Your task to perform on an android device: Check the new Jordans on Nike. Image 0: 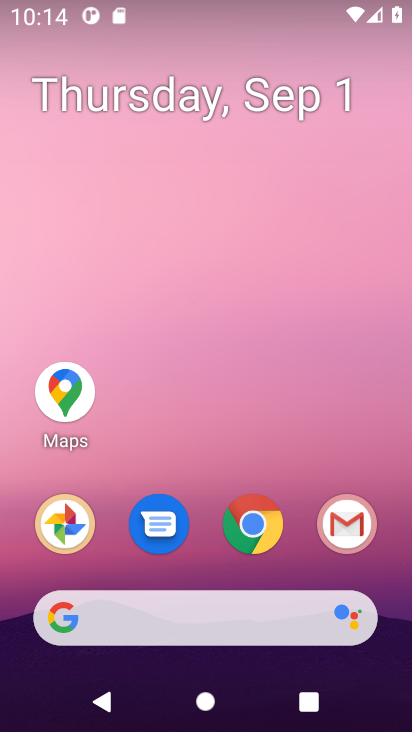
Step 0: press home button
Your task to perform on an android device: Check the new Jordans on Nike. Image 1: 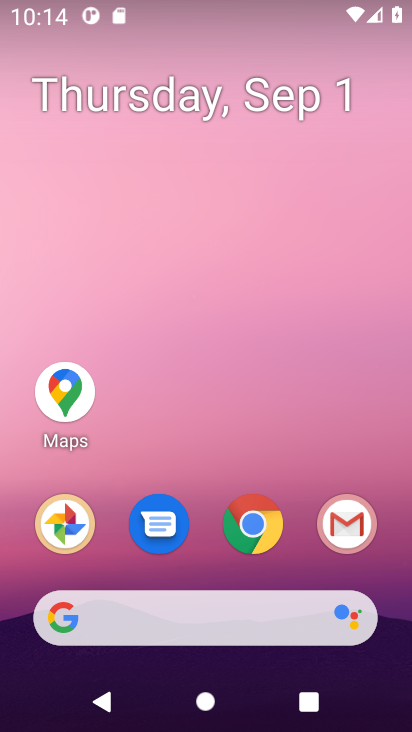
Step 1: click (377, 145)
Your task to perform on an android device: Check the new Jordans on Nike. Image 2: 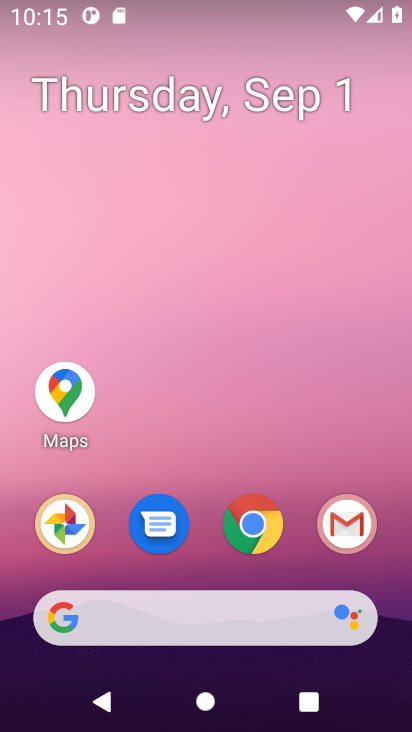
Step 2: drag from (393, 374) to (357, 70)
Your task to perform on an android device: Check the new Jordans on Nike. Image 3: 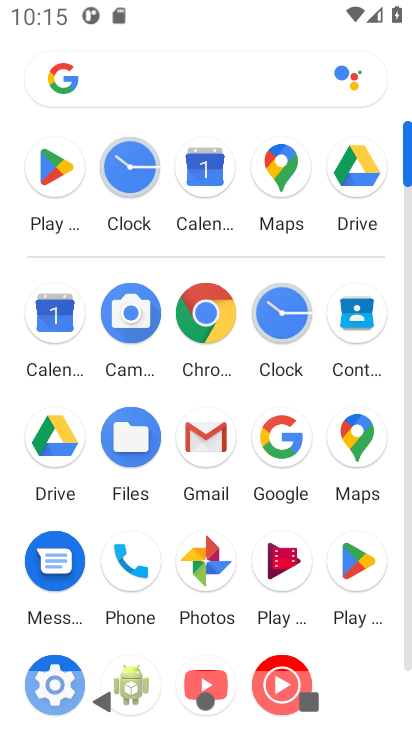
Step 3: click (216, 304)
Your task to perform on an android device: Check the new Jordans on Nike. Image 4: 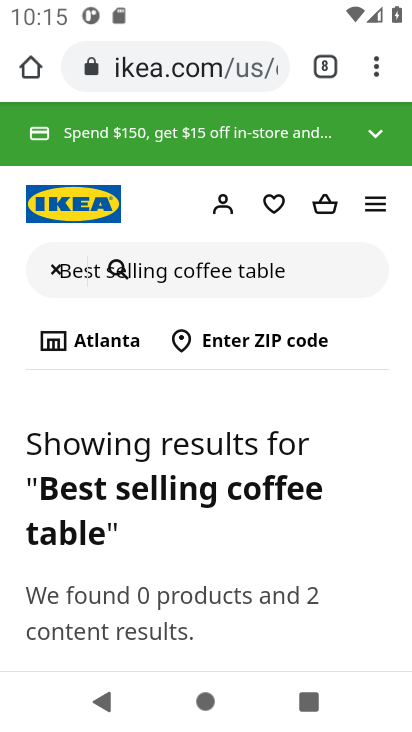
Step 4: click (198, 70)
Your task to perform on an android device: Check the new Jordans on Nike. Image 5: 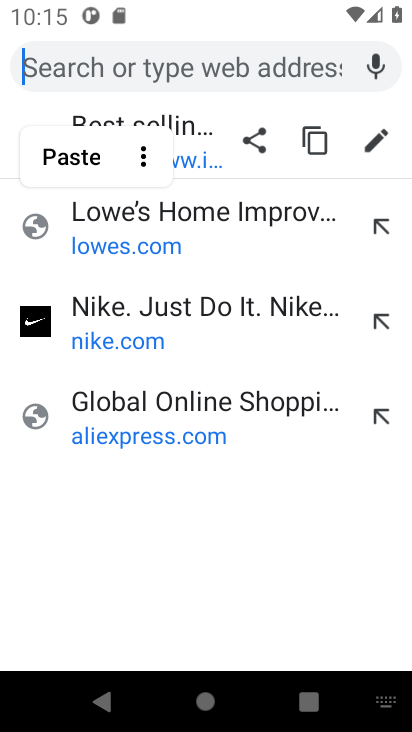
Step 5: type "nike"
Your task to perform on an android device: Check the new Jordans on Nike. Image 6: 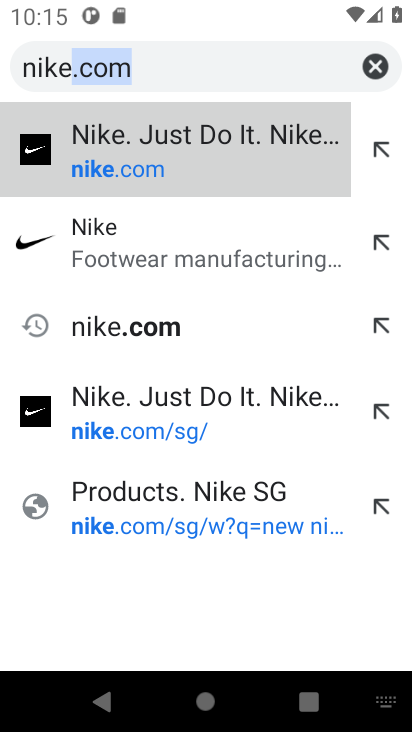
Step 6: click (152, 154)
Your task to perform on an android device: Check the new Jordans on Nike. Image 7: 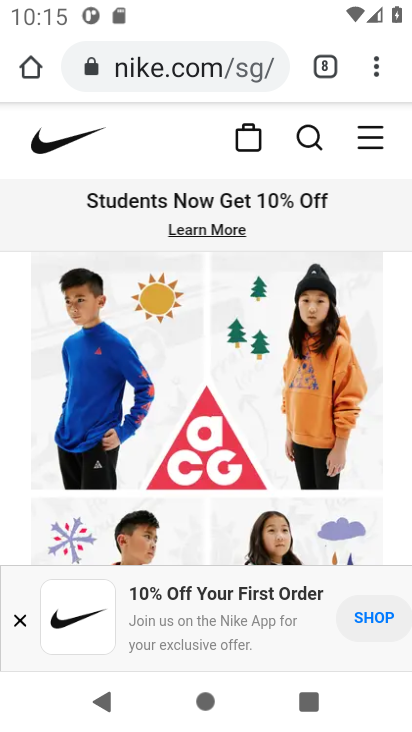
Step 7: click (306, 130)
Your task to perform on an android device: Check the new Jordans on Nike. Image 8: 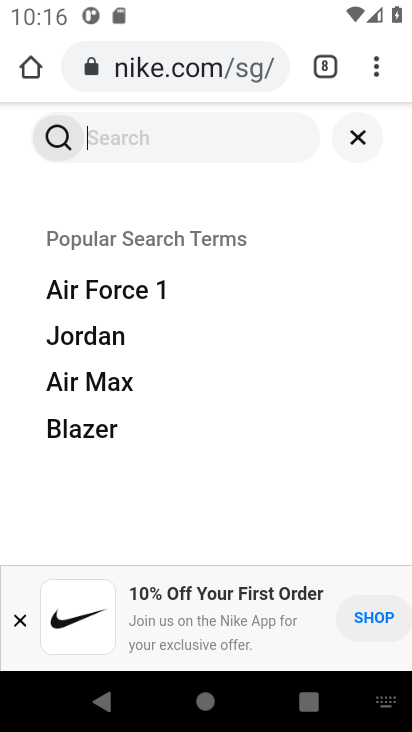
Step 8: press enter
Your task to perform on an android device: Check the new Jordans on Nike. Image 9: 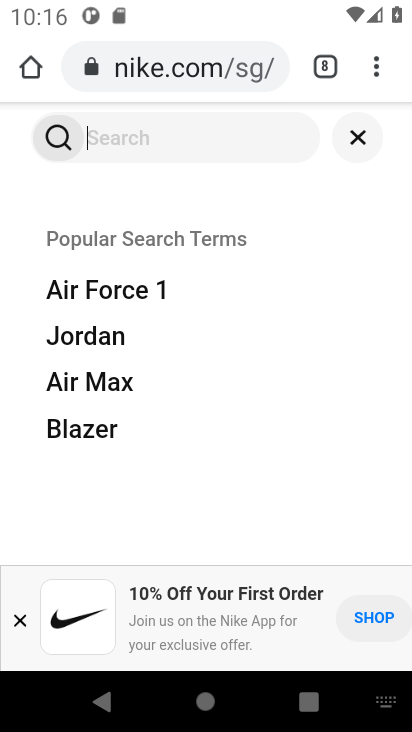
Step 9: type "jordans"
Your task to perform on an android device: Check the new Jordans on Nike. Image 10: 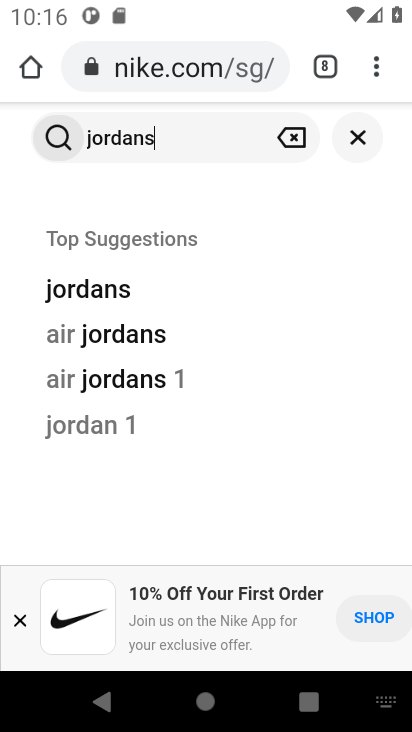
Step 10: click (109, 285)
Your task to perform on an android device: Check the new Jordans on Nike. Image 11: 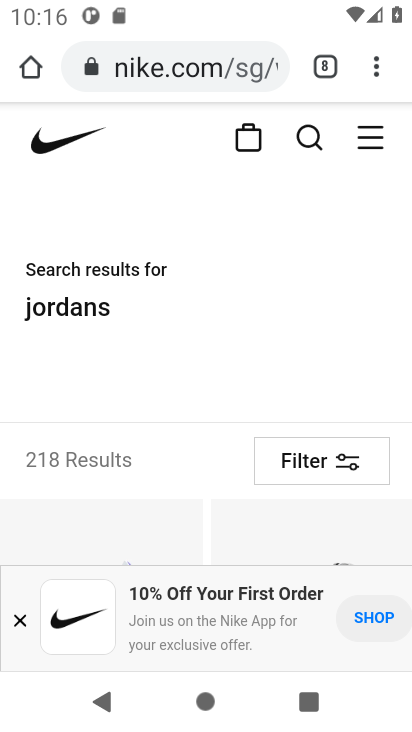
Step 11: task complete